Your task to perform on an android device: What's on my calendar tomorrow? Image 0: 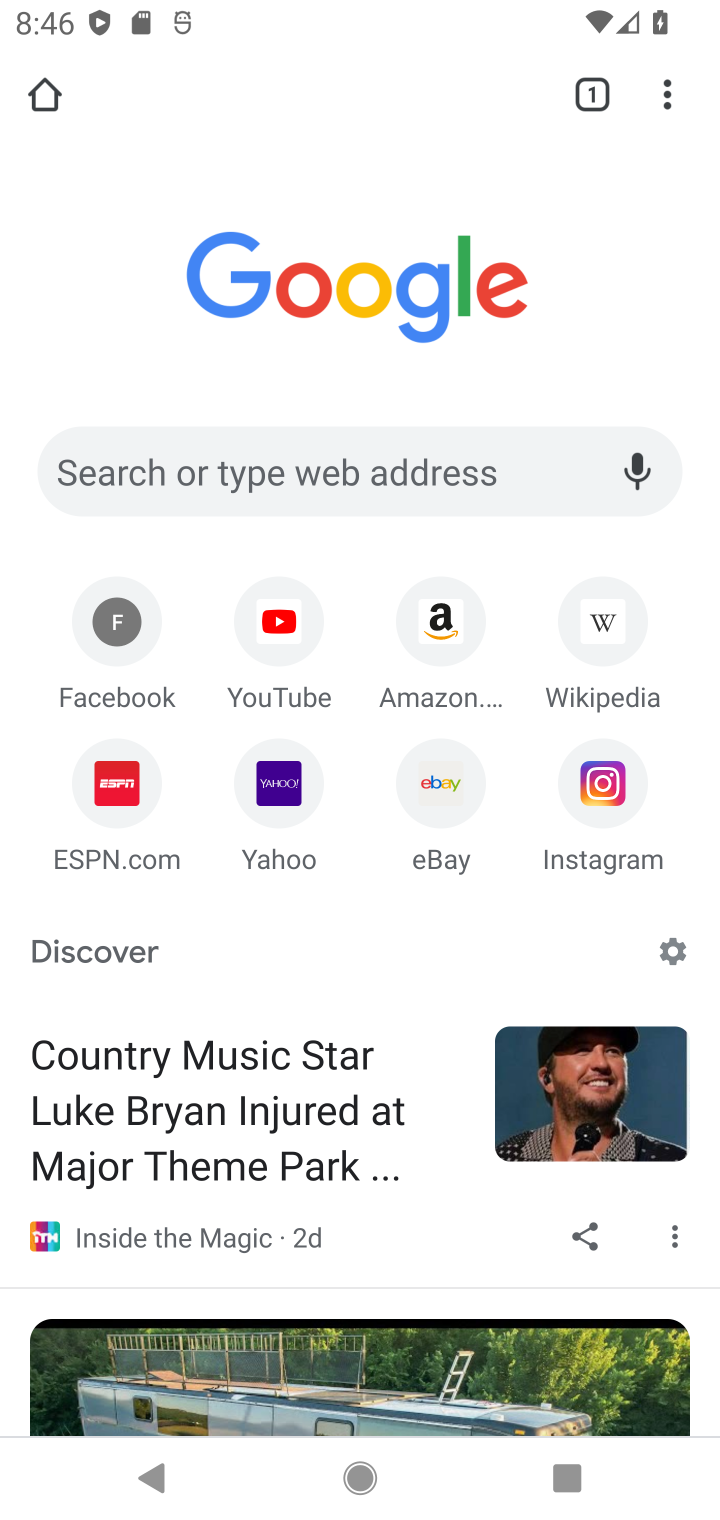
Step 0: press home button
Your task to perform on an android device: What's on my calendar tomorrow? Image 1: 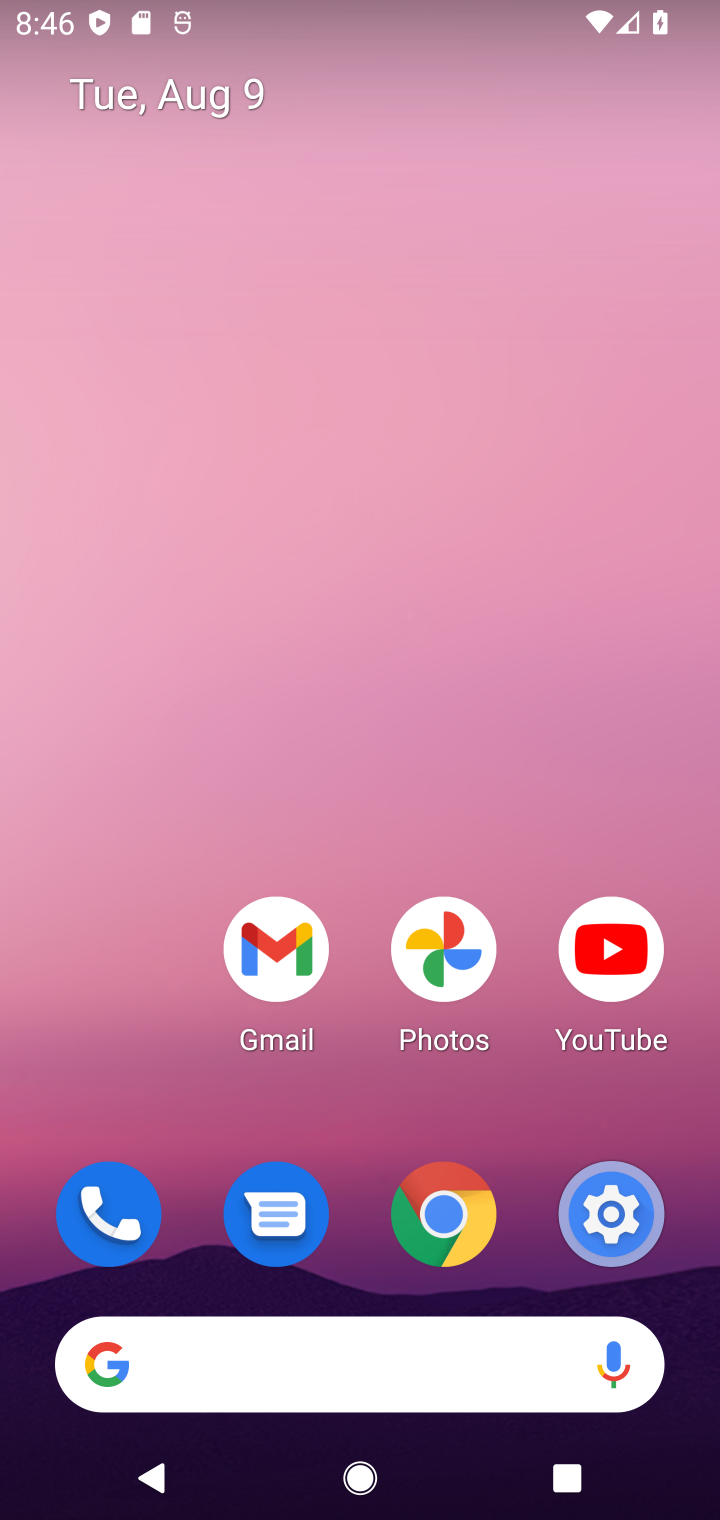
Step 1: drag from (184, 1291) to (312, 768)
Your task to perform on an android device: What's on my calendar tomorrow? Image 2: 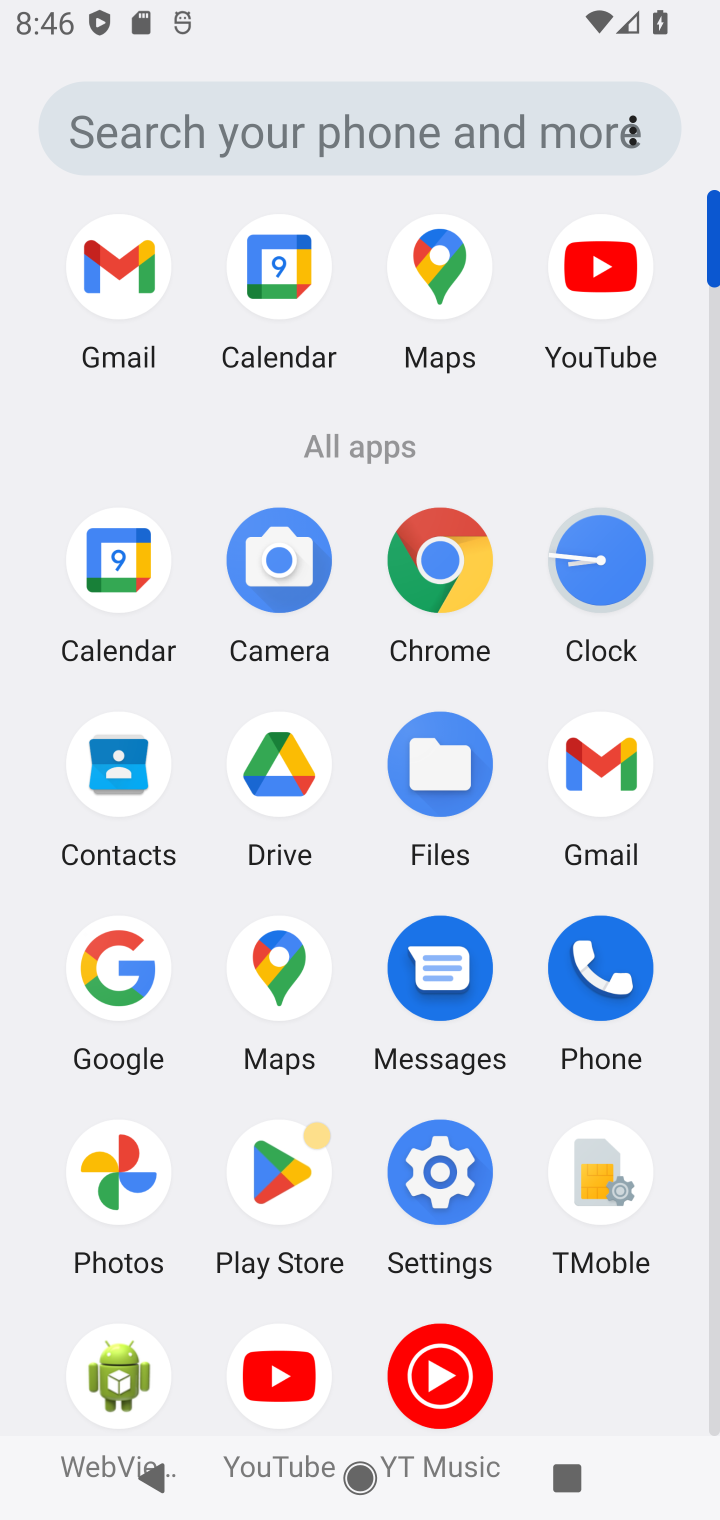
Step 2: click (98, 574)
Your task to perform on an android device: What's on my calendar tomorrow? Image 3: 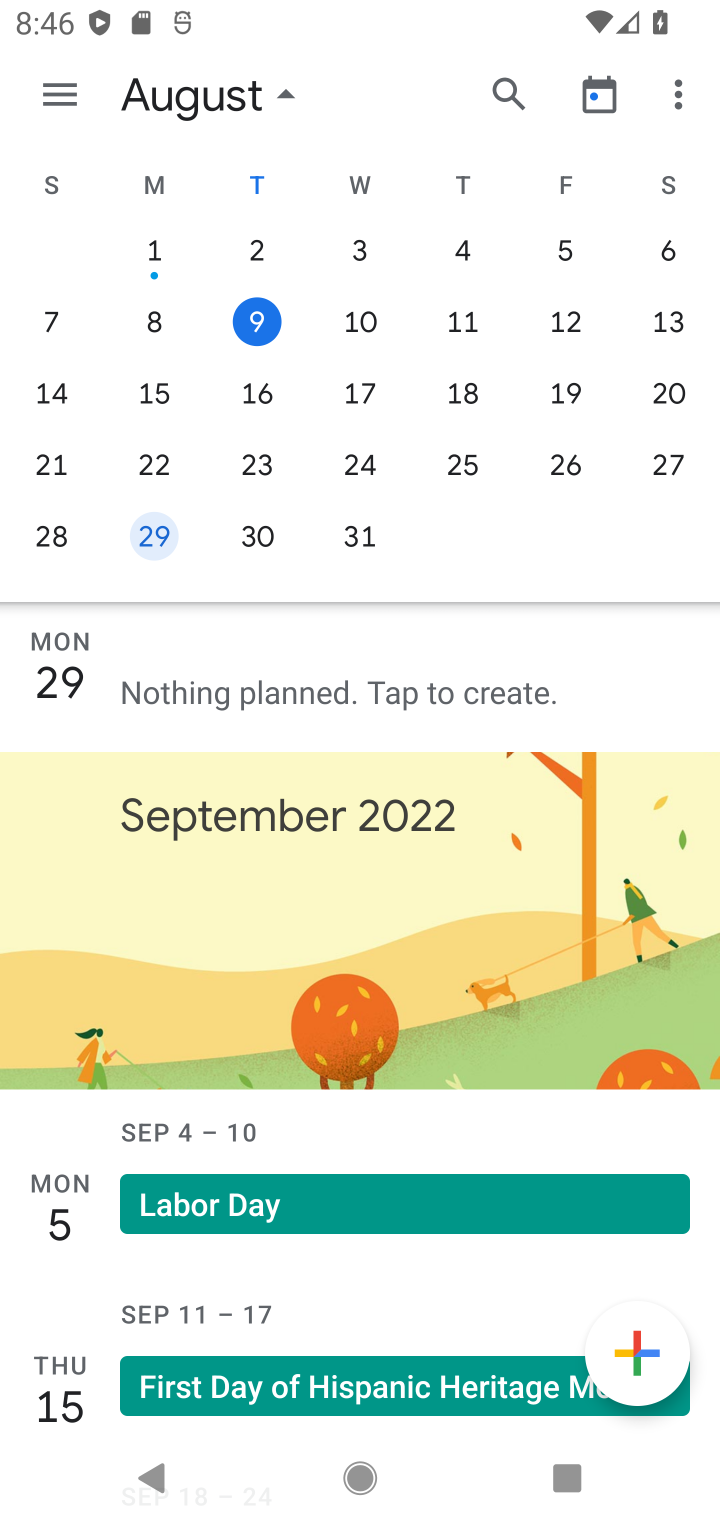
Step 3: task complete